Your task to perform on an android device: Go to Android settings Image 0: 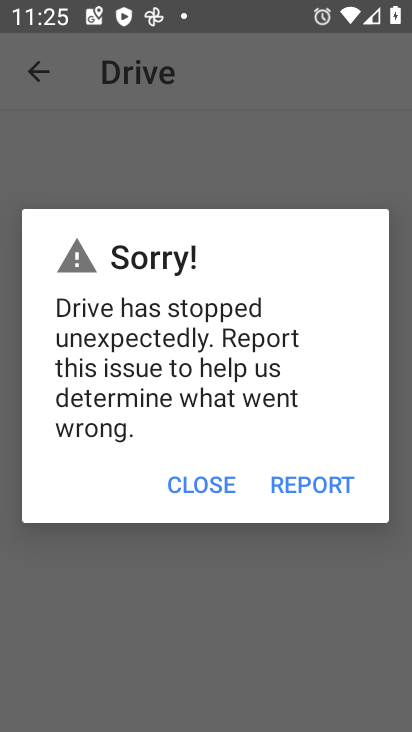
Step 0: press home button
Your task to perform on an android device: Go to Android settings Image 1: 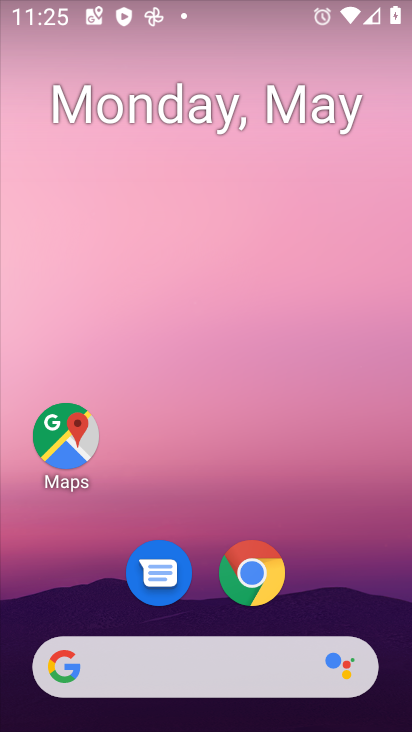
Step 1: drag from (359, 560) to (247, 79)
Your task to perform on an android device: Go to Android settings Image 2: 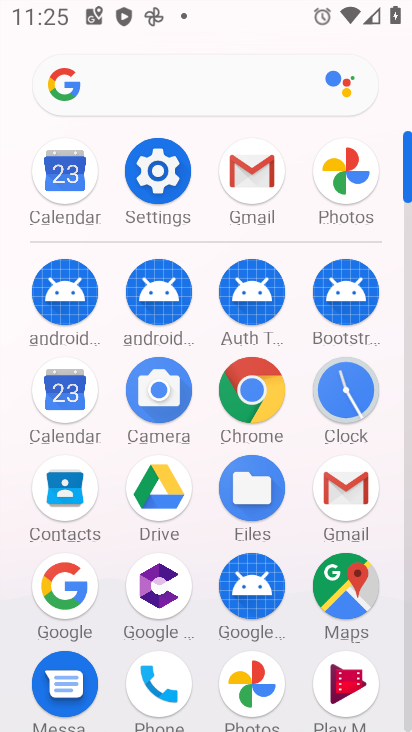
Step 2: click (171, 210)
Your task to perform on an android device: Go to Android settings Image 3: 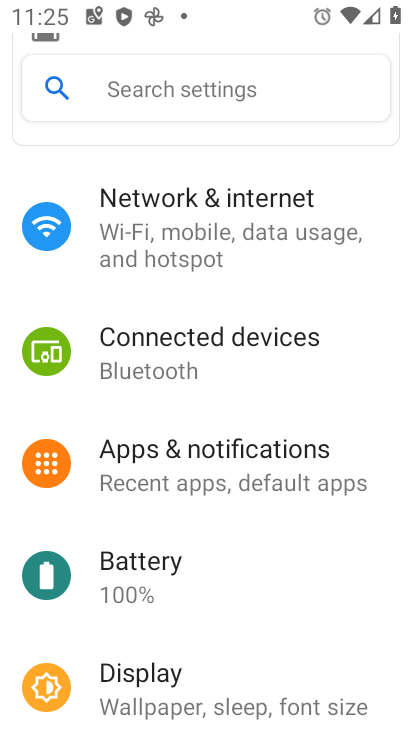
Step 3: task complete